Your task to perform on an android device: Open Chrome and go to settings Image 0: 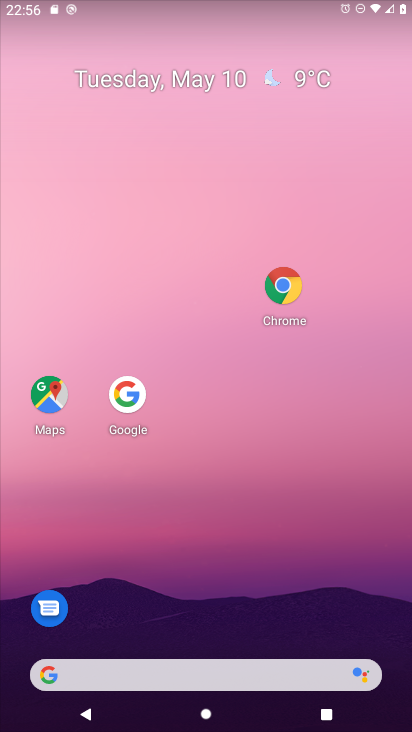
Step 0: drag from (171, 677) to (297, 258)
Your task to perform on an android device: Open Chrome and go to settings Image 1: 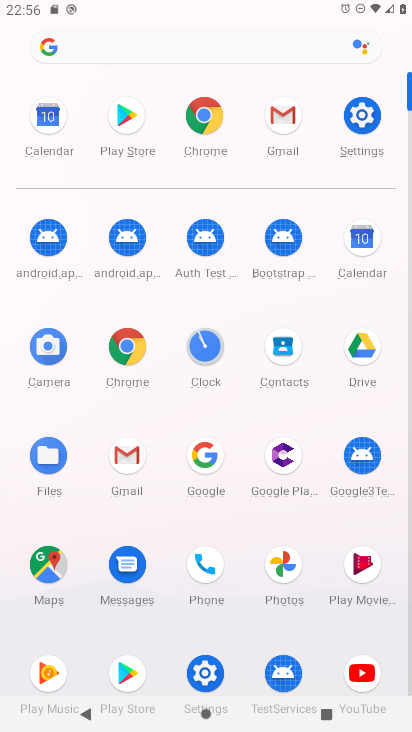
Step 1: click (198, 118)
Your task to perform on an android device: Open Chrome and go to settings Image 2: 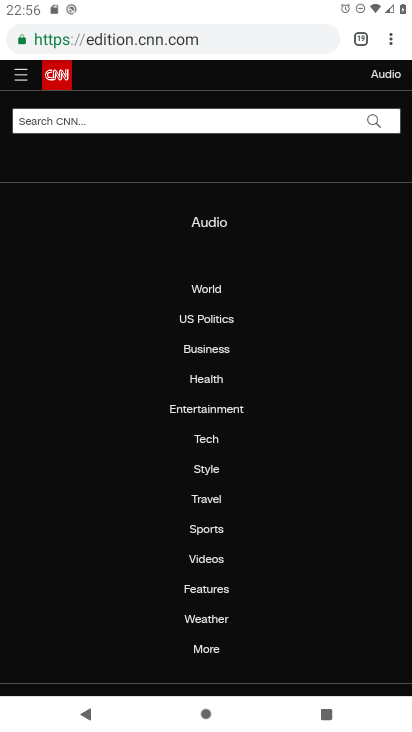
Step 2: task complete